Your task to perform on an android device: Go to internet settings Image 0: 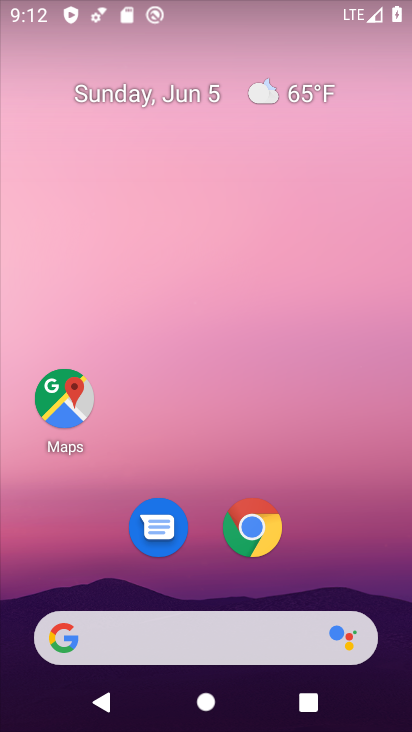
Step 0: drag from (233, 587) to (232, 106)
Your task to perform on an android device: Go to internet settings Image 1: 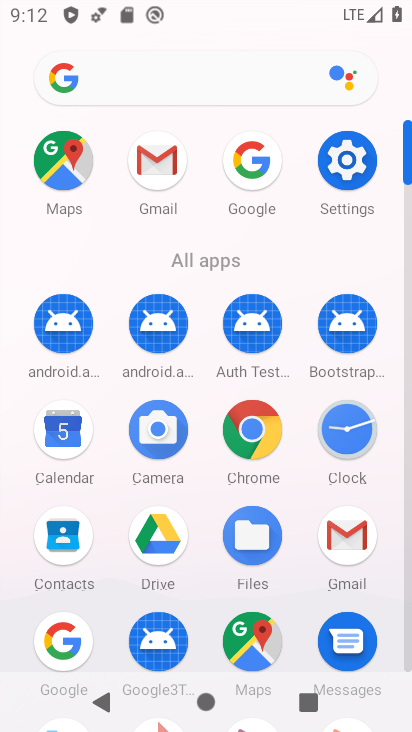
Step 1: click (361, 156)
Your task to perform on an android device: Go to internet settings Image 2: 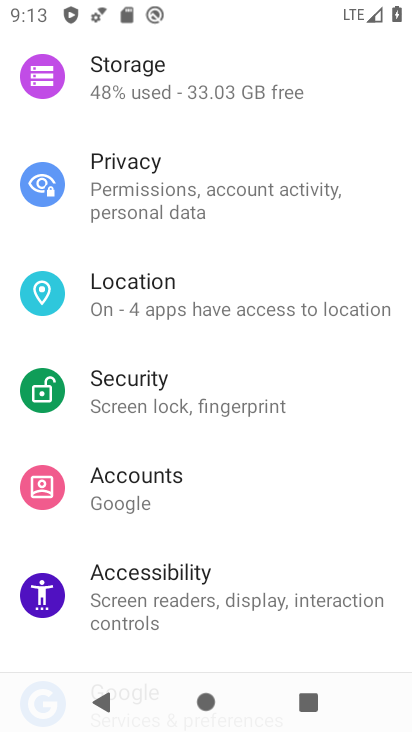
Step 2: drag from (277, 196) to (198, 636)
Your task to perform on an android device: Go to internet settings Image 3: 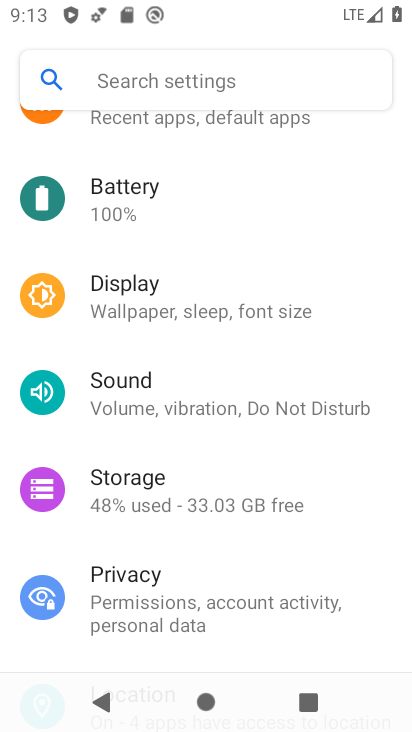
Step 3: drag from (258, 269) to (244, 488)
Your task to perform on an android device: Go to internet settings Image 4: 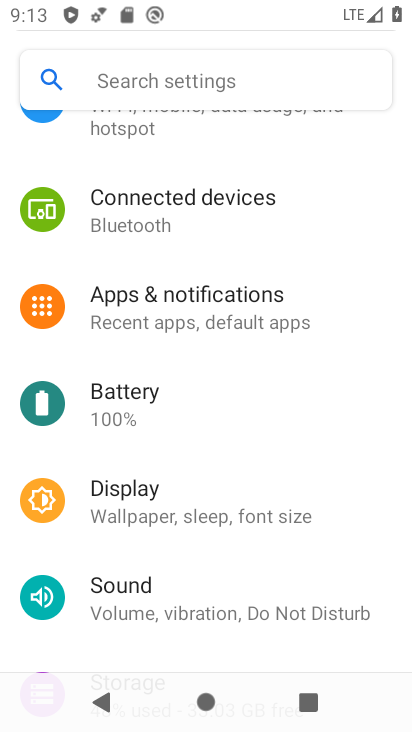
Step 4: drag from (151, 201) to (161, 598)
Your task to perform on an android device: Go to internet settings Image 5: 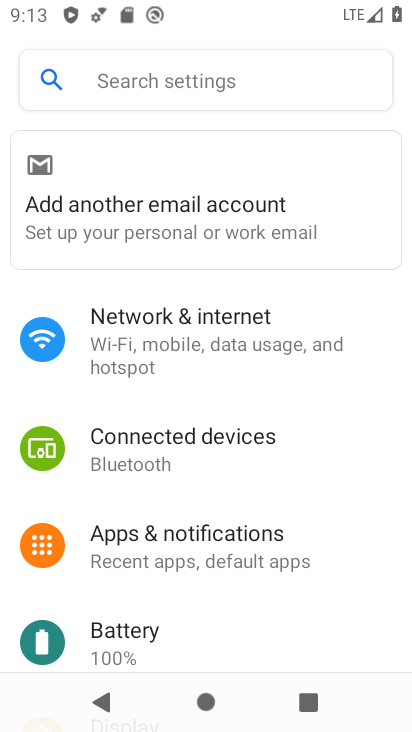
Step 5: click (193, 323)
Your task to perform on an android device: Go to internet settings Image 6: 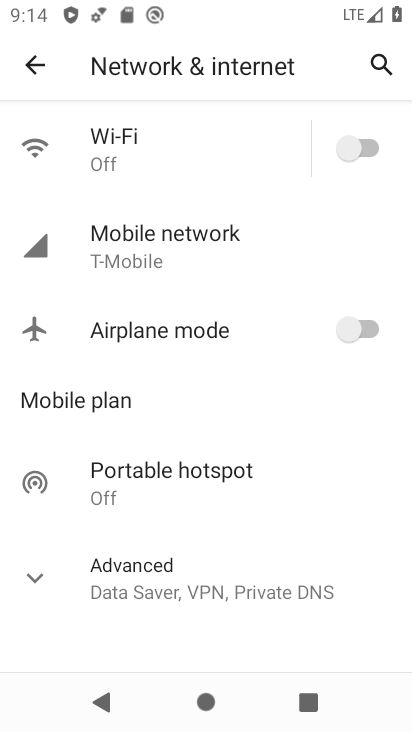
Step 6: task complete